Your task to perform on an android device: change keyboard looks Image 0: 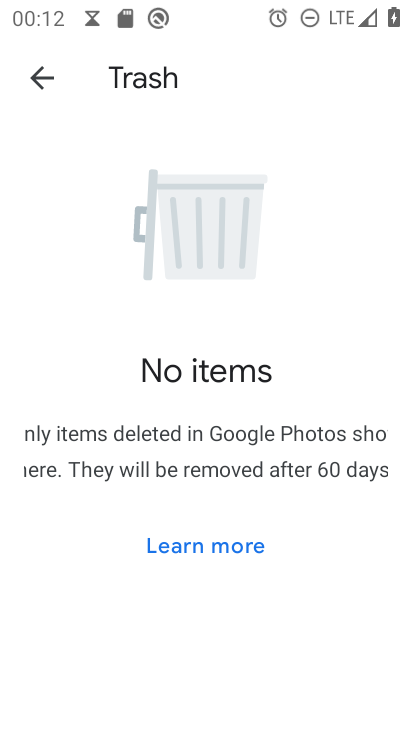
Step 0: press home button
Your task to perform on an android device: change keyboard looks Image 1: 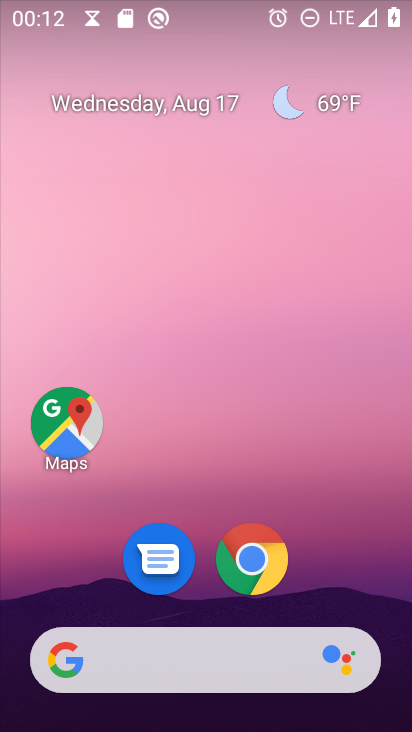
Step 1: drag from (132, 675) to (220, 135)
Your task to perform on an android device: change keyboard looks Image 2: 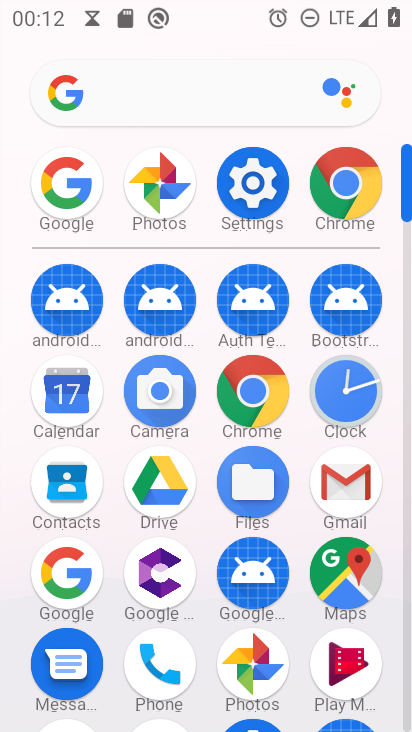
Step 2: click (250, 184)
Your task to perform on an android device: change keyboard looks Image 3: 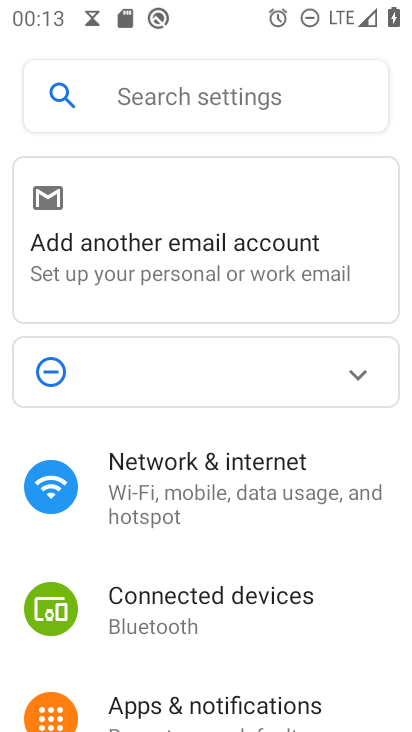
Step 3: drag from (160, 541) to (288, 373)
Your task to perform on an android device: change keyboard looks Image 4: 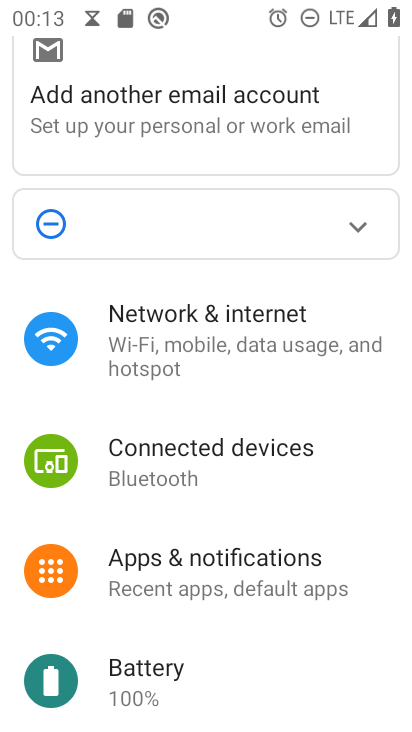
Step 4: drag from (217, 529) to (287, 402)
Your task to perform on an android device: change keyboard looks Image 5: 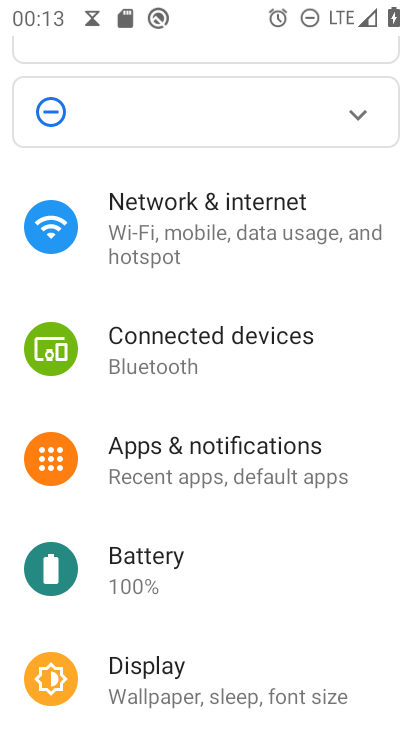
Step 5: drag from (217, 557) to (299, 409)
Your task to perform on an android device: change keyboard looks Image 6: 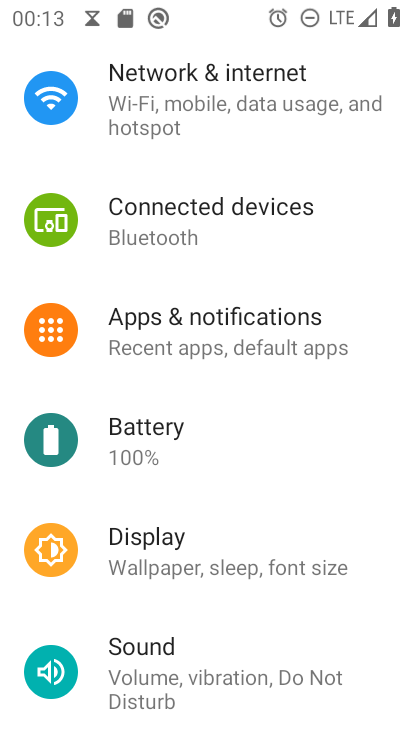
Step 6: drag from (149, 492) to (242, 331)
Your task to perform on an android device: change keyboard looks Image 7: 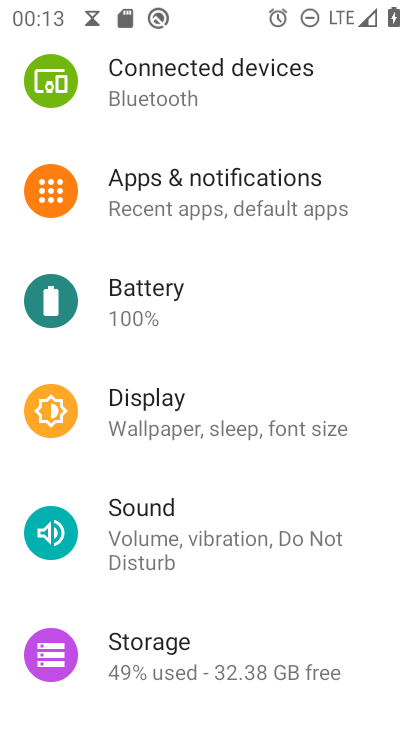
Step 7: drag from (166, 469) to (226, 349)
Your task to perform on an android device: change keyboard looks Image 8: 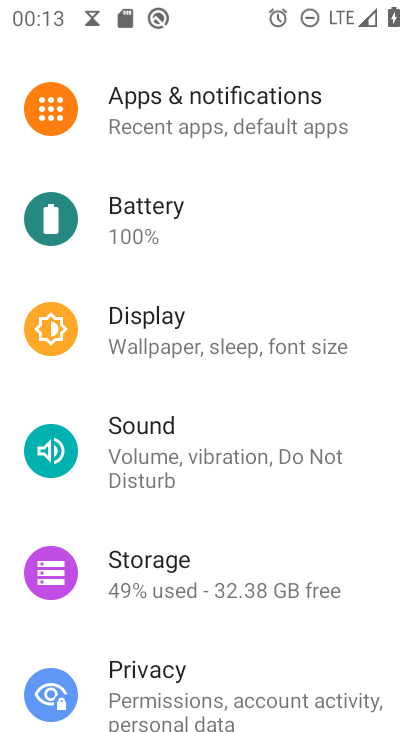
Step 8: drag from (138, 517) to (205, 395)
Your task to perform on an android device: change keyboard looks Image 9: 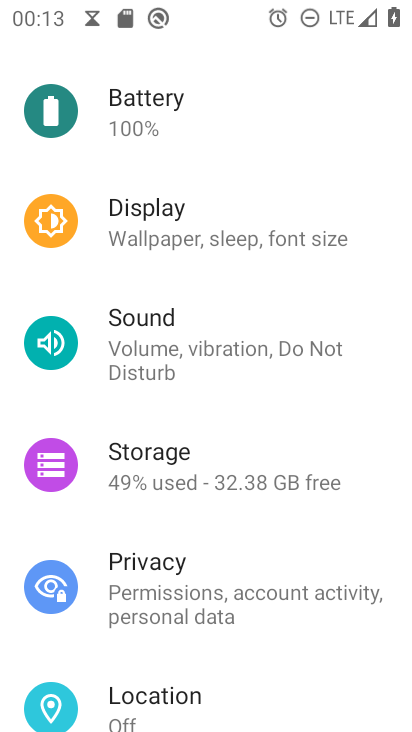
Step 9: drag from (124, 420) to (201, 291)
Your task to perform on an android device: change keyboard looks Image 10: 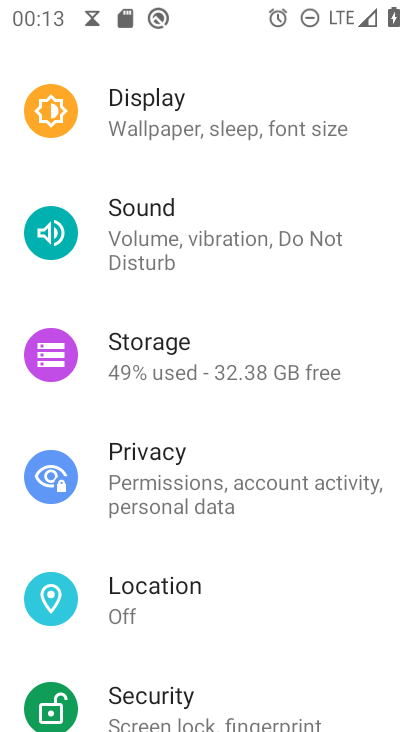
Step 10: drag from (128, 554) to (156, 413)
Your task to perform on an android device: change keyboard looks Image 11: 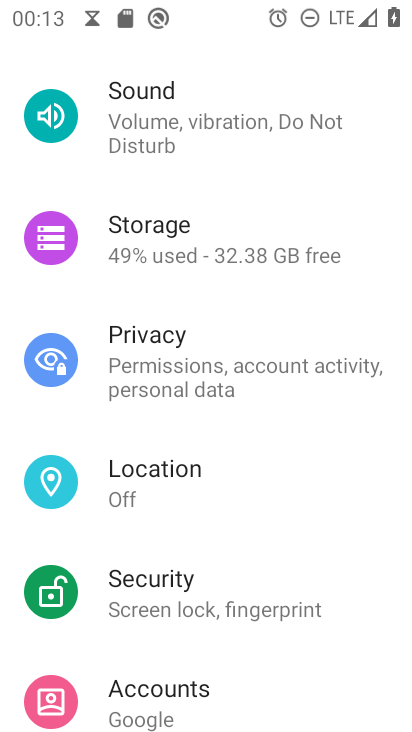
Step 11: drag from (140, 533) to (201, 417)
Your task to perform on an android device: change keyboard looks Image 12: 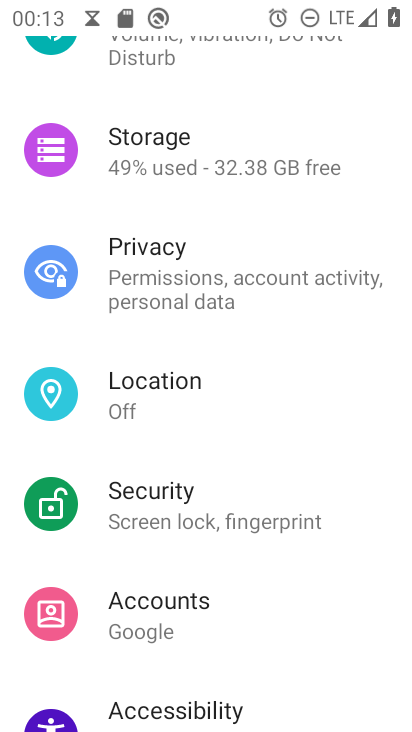
Step 12: drag from (134, 567) to (253, 422)
Your task to perform on an android device: change keyboard looks Image 13: 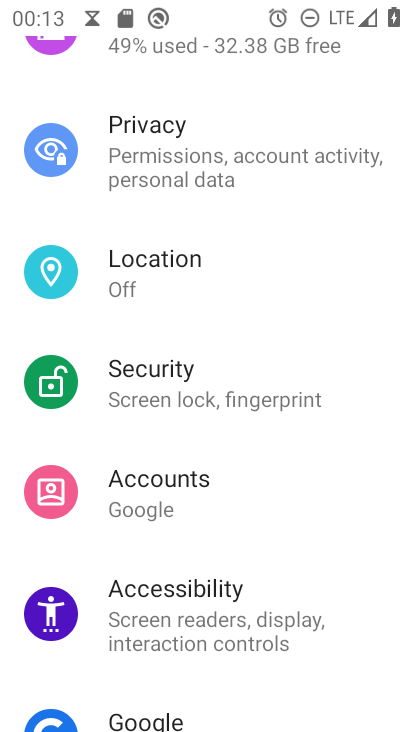
Step 13: drag from (147, 556) to (276, 409)
Your task to perform on an android device: change keyboard looks Image 14: 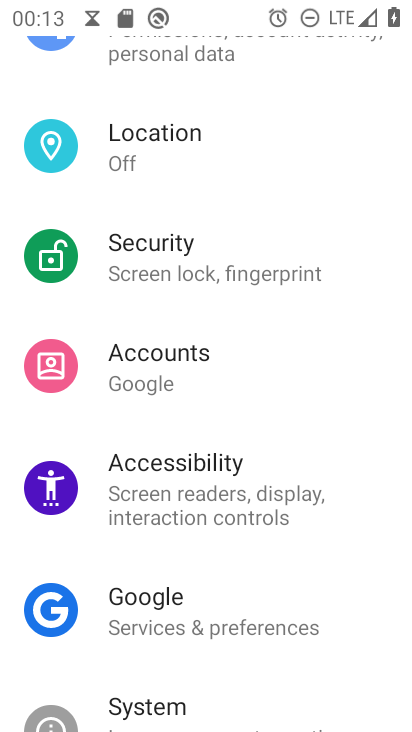
Step 14: drag from (77, 553) to (218, 405)
Your task to perform on an android device: change keyboard looks Image 15: 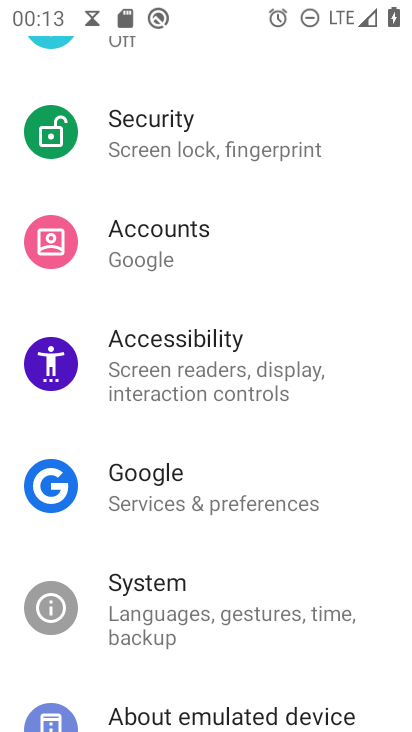
Step 15: click (154, 588)
Your task to perform on an android device: change keyboard looks Image 16: 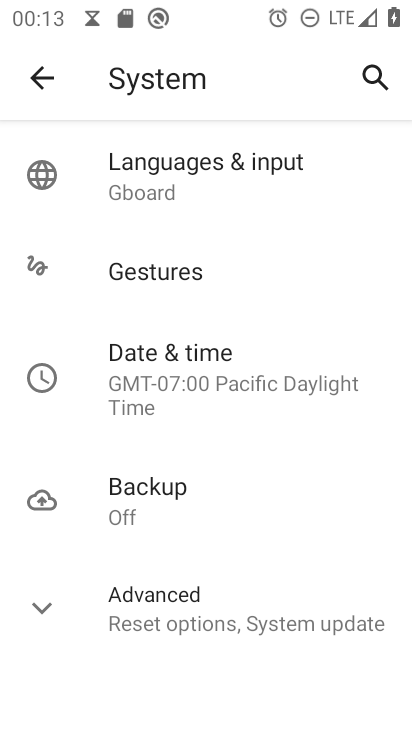
Step 16: click (163, 195)
Your task to perform on an android device: change keyboard looks Image 17: 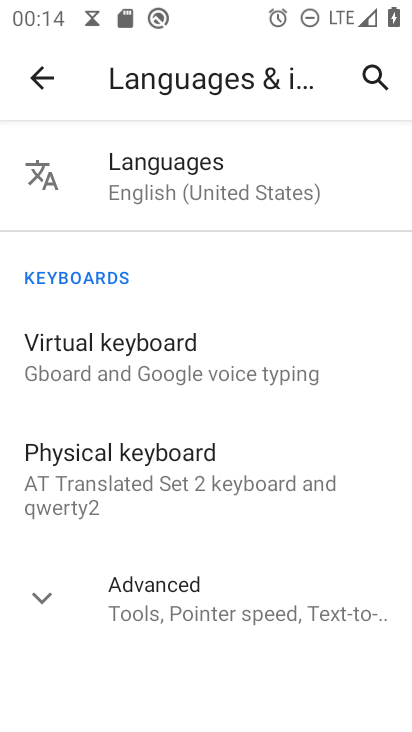
Step 17: click (140, 361)
Your task to perform on an android device: change keyboard looks Image 18: 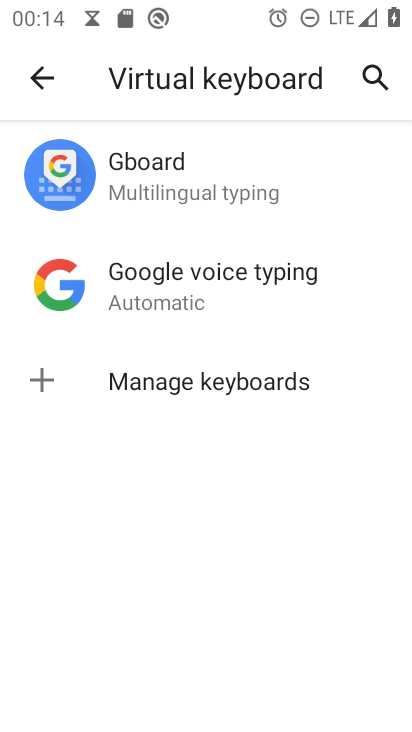
Step 18: click (154, 191)
Your task to perform on an android device: change keyboard looks Image 19: 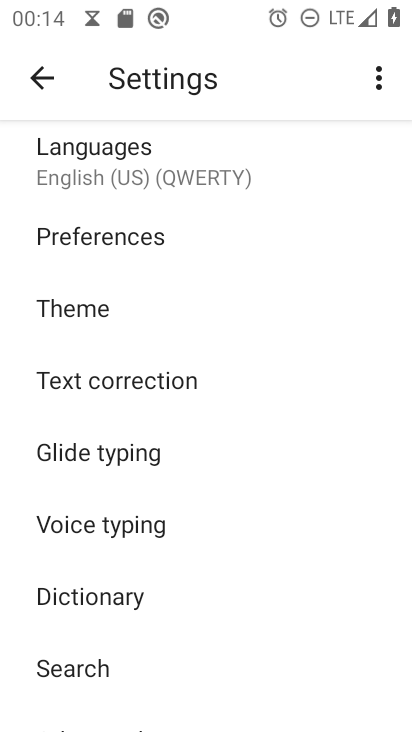
Step 19: click (95, 314)
Your task to perform on an android device: change keyboard looks Image 20: 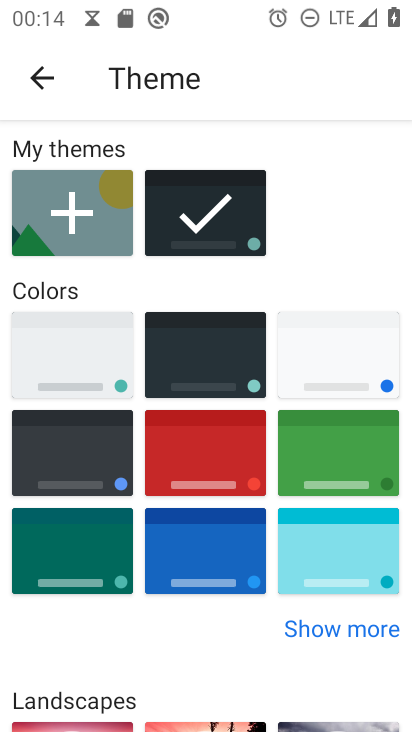
Step 20: click (297, 360)
Your task to perform on an android device: change keyboard looks Image 21: 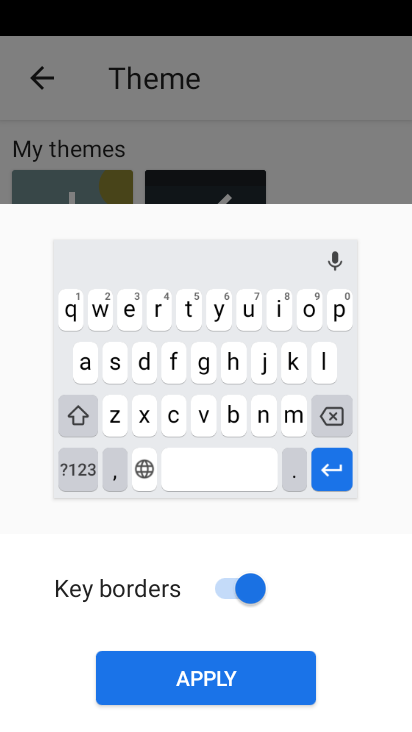
Step 21: click (193, 674)
Your task to perform on an android device: change keyboard looks Image 22: 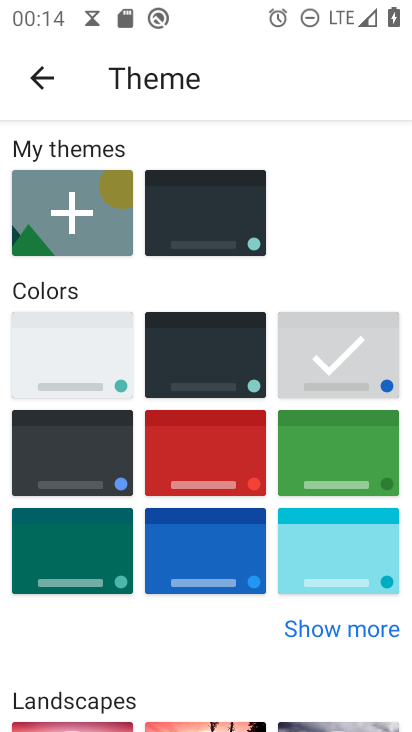
Step 22: task complete